Your task to perform on an android device: What's the weather? Image 0: 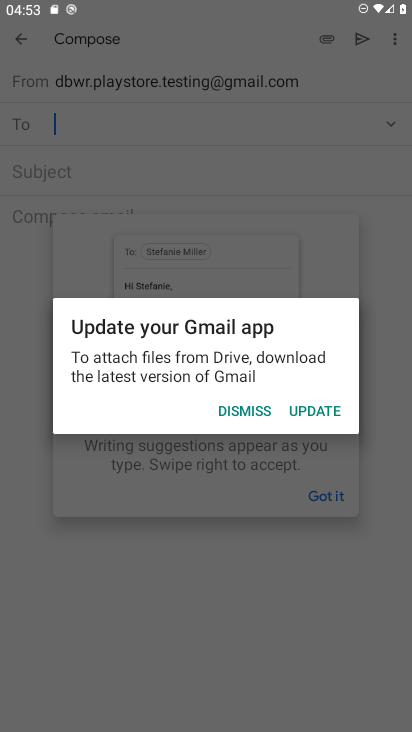
Step 0: press home button
Your task to perform on an android device: What's the weather? Image 1: 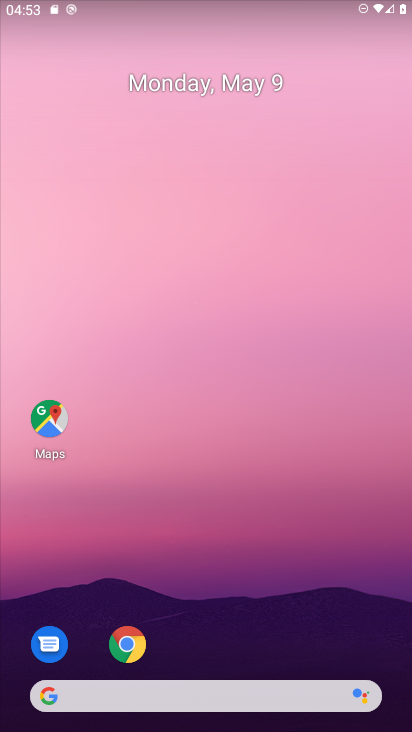
Step 1: drag from (231, 619) to (177, 6)
Your task to perform on an android device: What's the weather? Image 2: 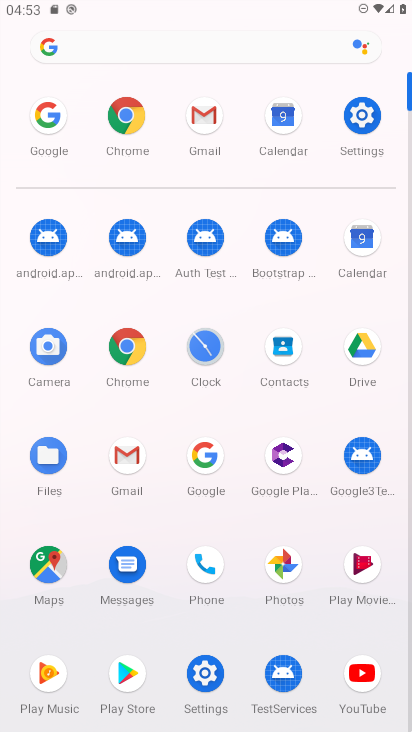
Step 2: click (49, 112)
Your task to perform on an android device: What's the weather? Image 3: 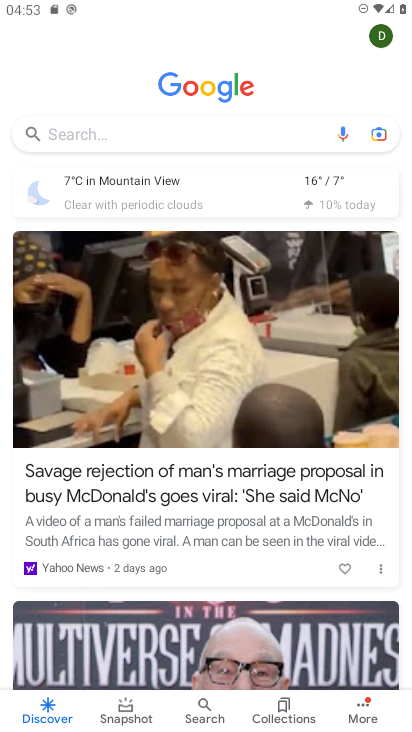
Step 3: click (176, 140)
Your task to perform on an android device: What's the weather? Image 4: 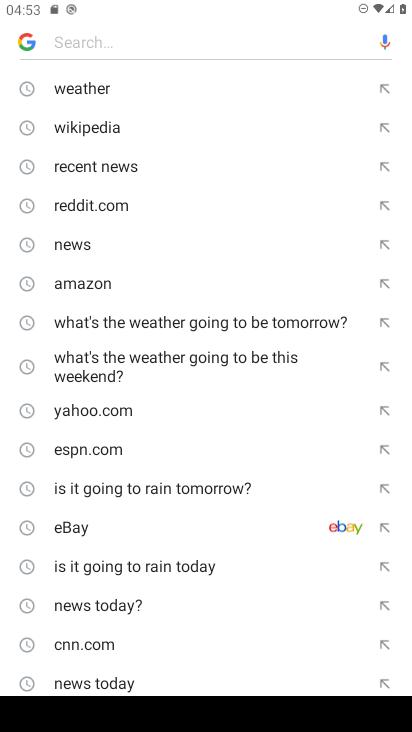
Step 4: click (88, 95)
Your task to perform on an android device: What's the weather? Image 5: 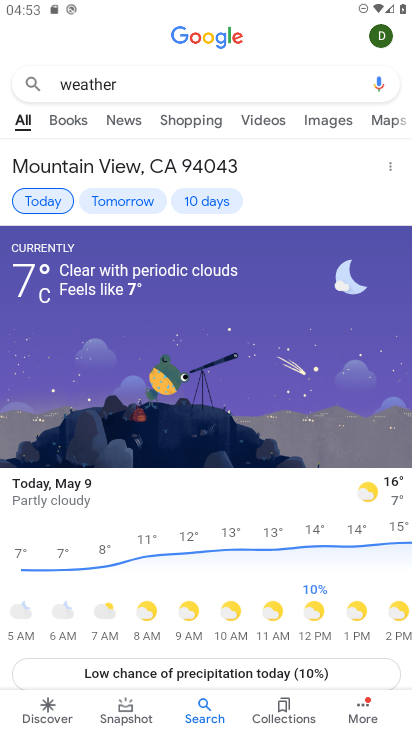
Step 5: task complete